Your task to perform on an android device: Open Google Chrome and open the bookmarks view Image 0: 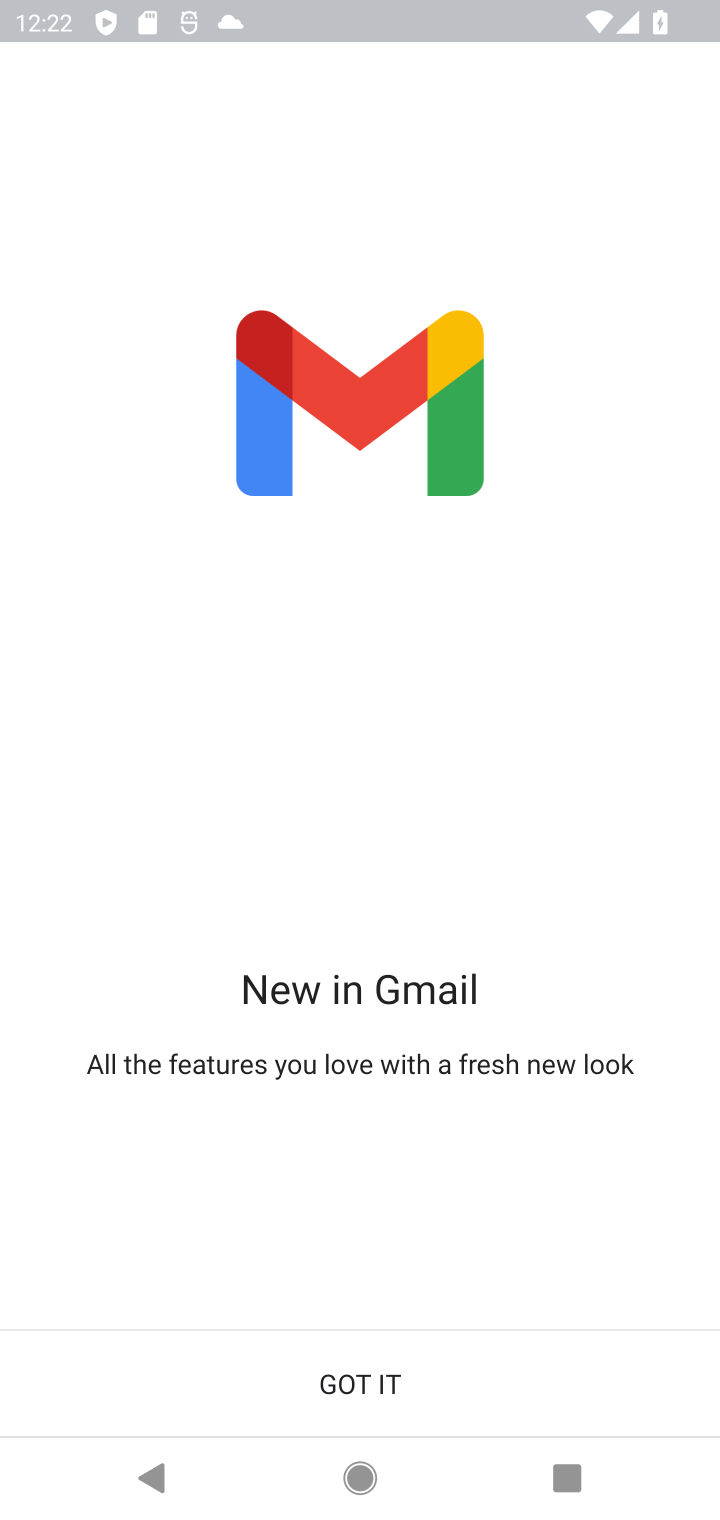
Step 0: press home button
Your task to perform on an android device: Open Google Chrome and open the bookmarks view Image 1: 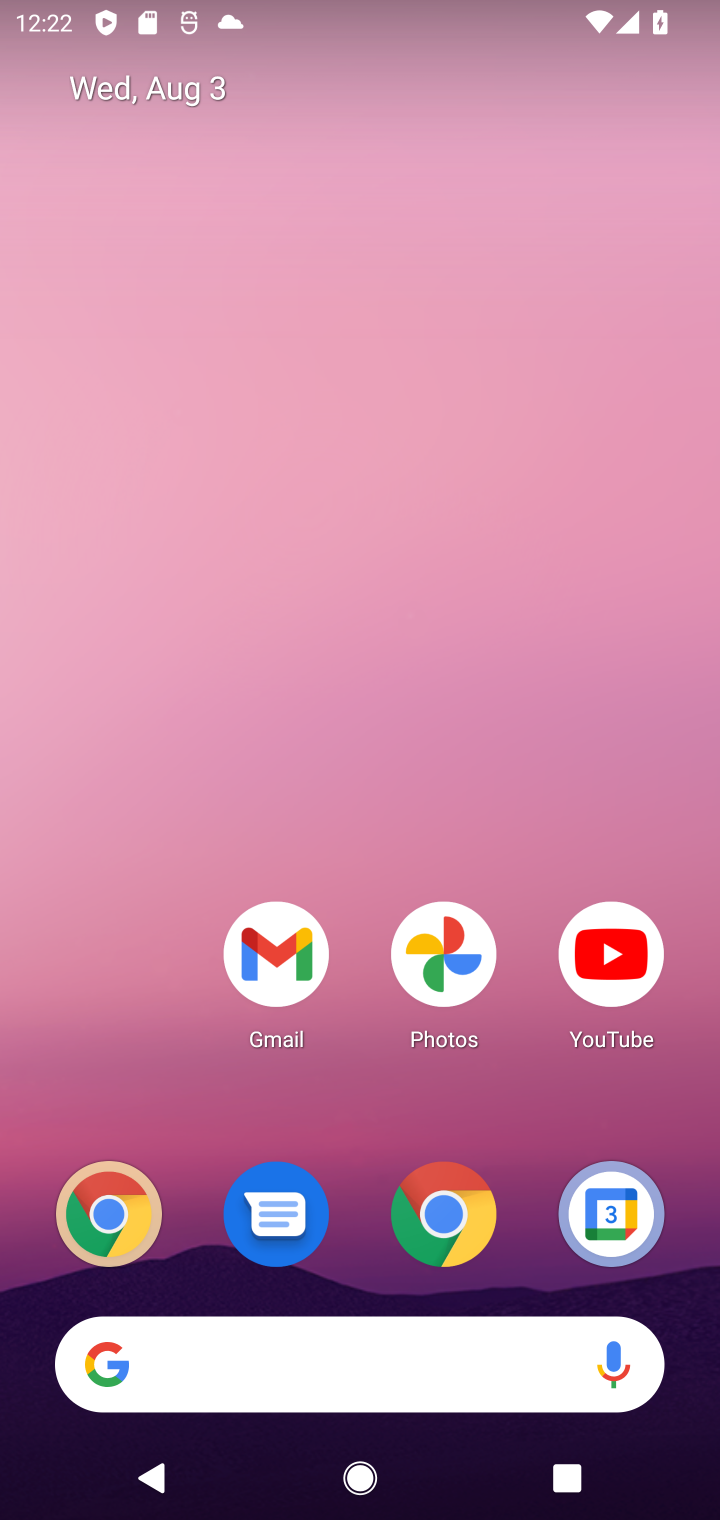
Step 1: click (472, 1202)
Your task to perform on an android device: Open Google Chrome and open the bookmarks view Image 2: 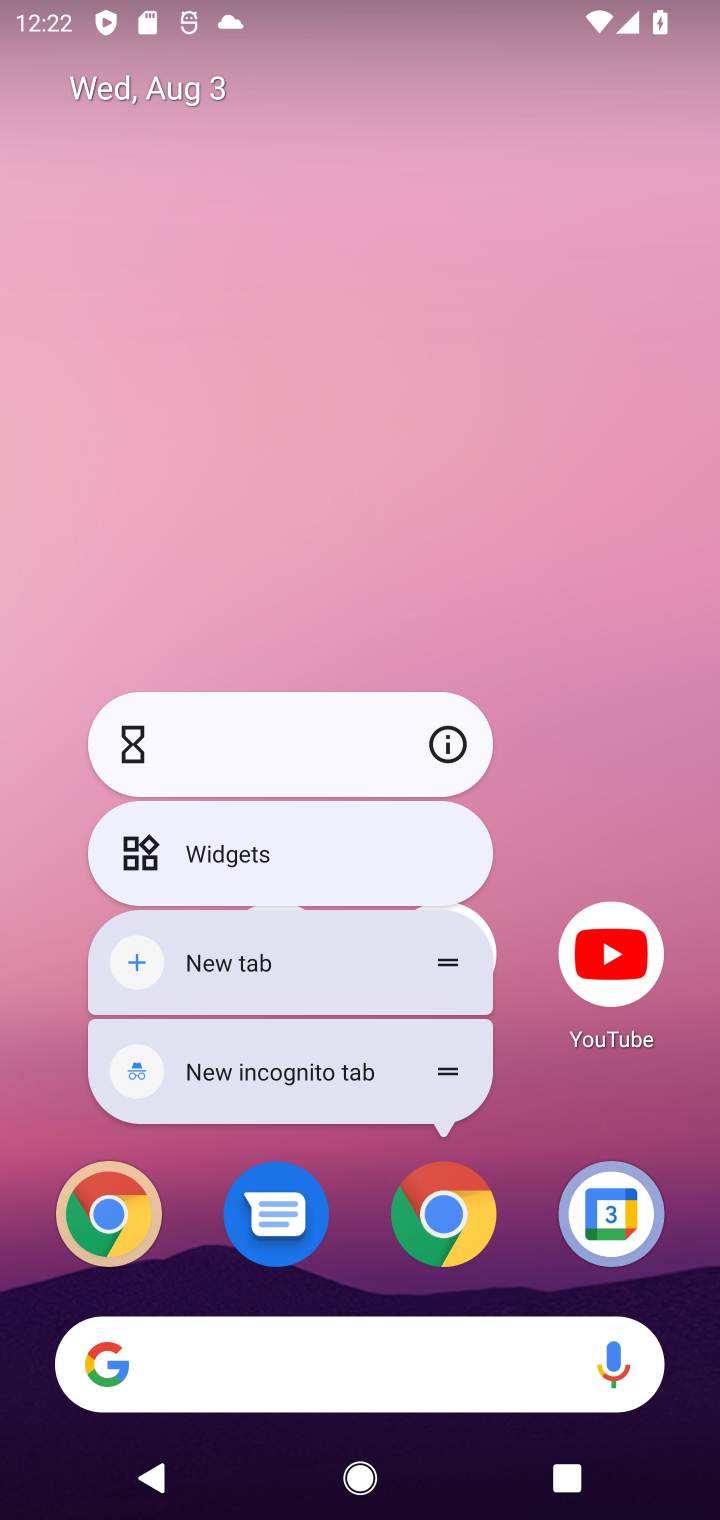
Step 2: click (462, 1209)
Your task to perform on an android device: Open Google Chrome and open the bookmarks view Image 3: 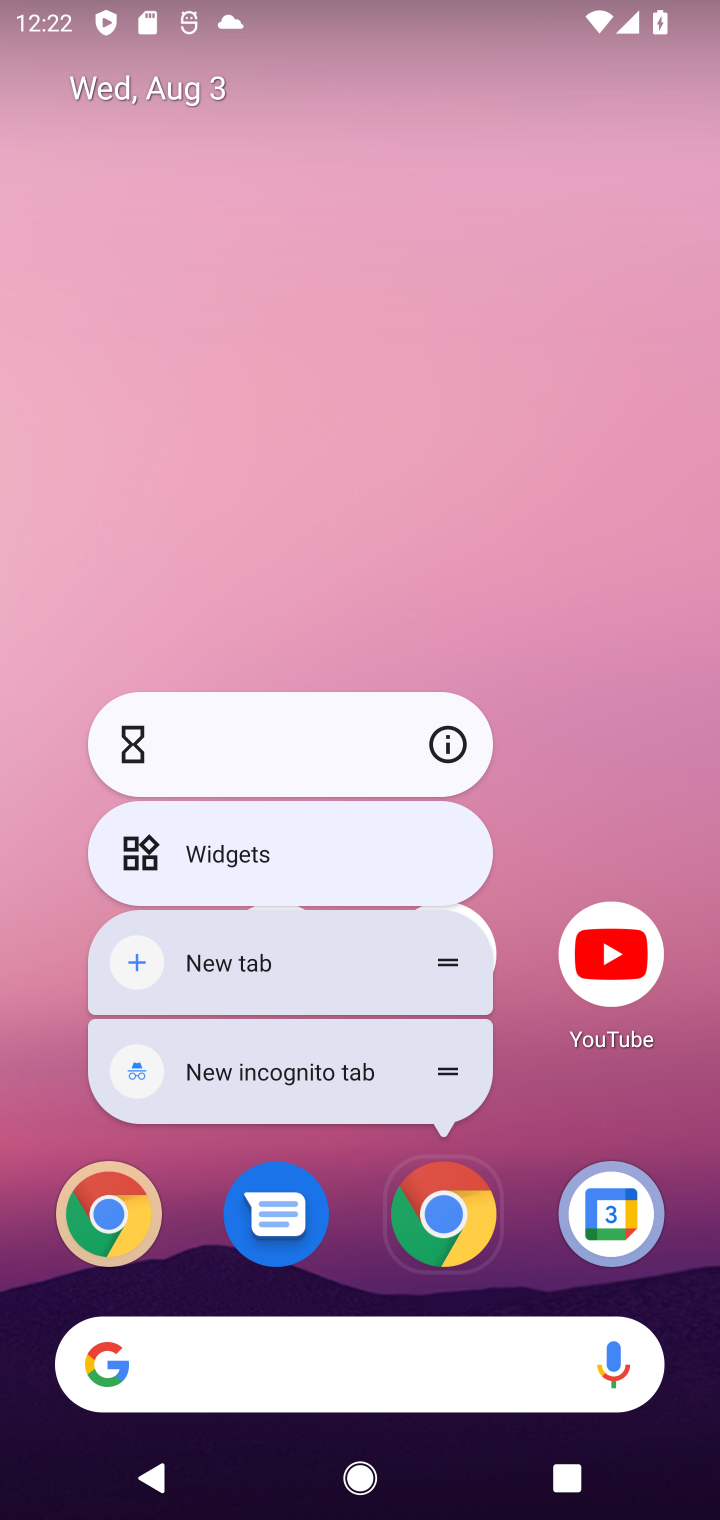
Step 3: click (451, 1251)
Your task to perform on an android device: Open Google Chrome and open the bookmarks view Image 4: 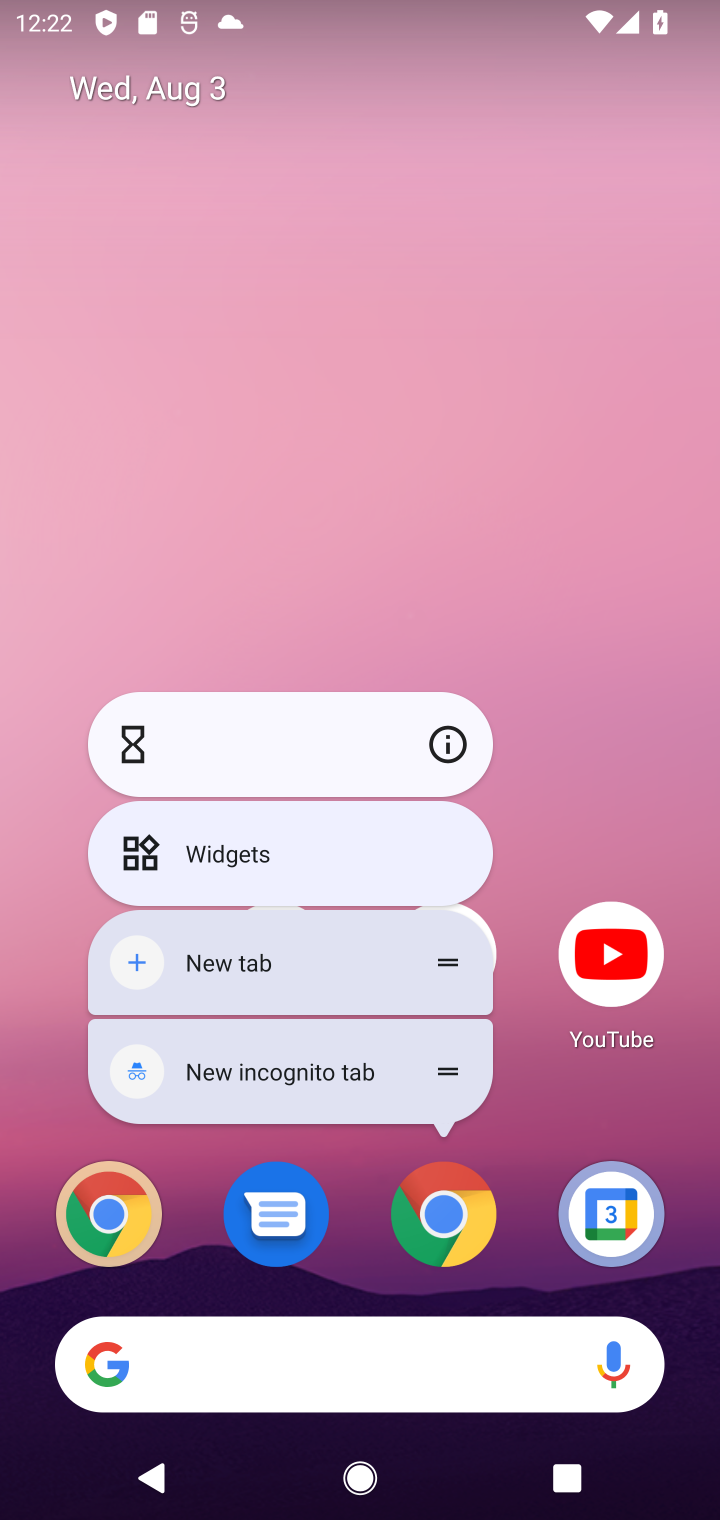
Step 4: click (451, 1251)
Your task to perform on an android device: Open Google Chrome and open the bookmarks view Image 5: 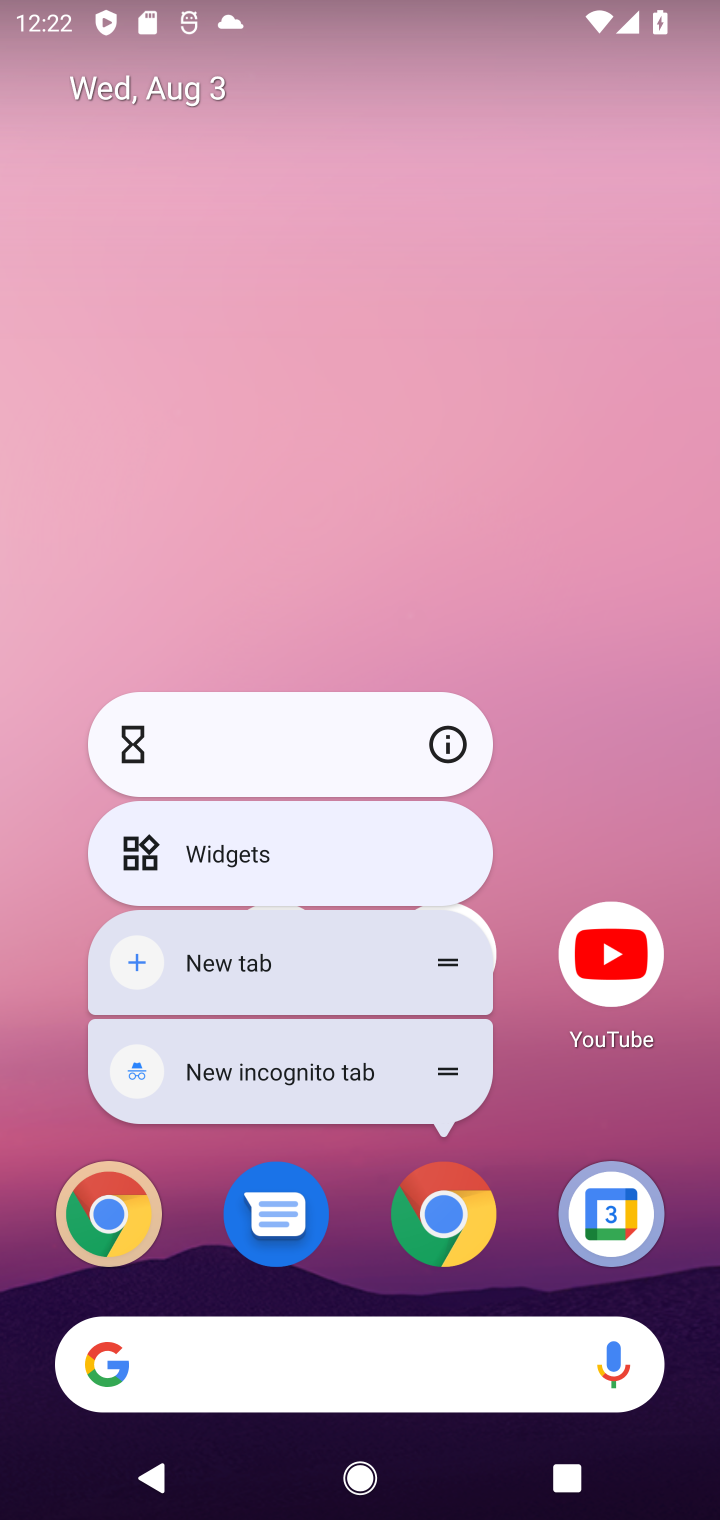
Step 5: click (469, 1230)
Your task to perform on an android device: Open Google Chrome and open the bookmarks view Image 6: 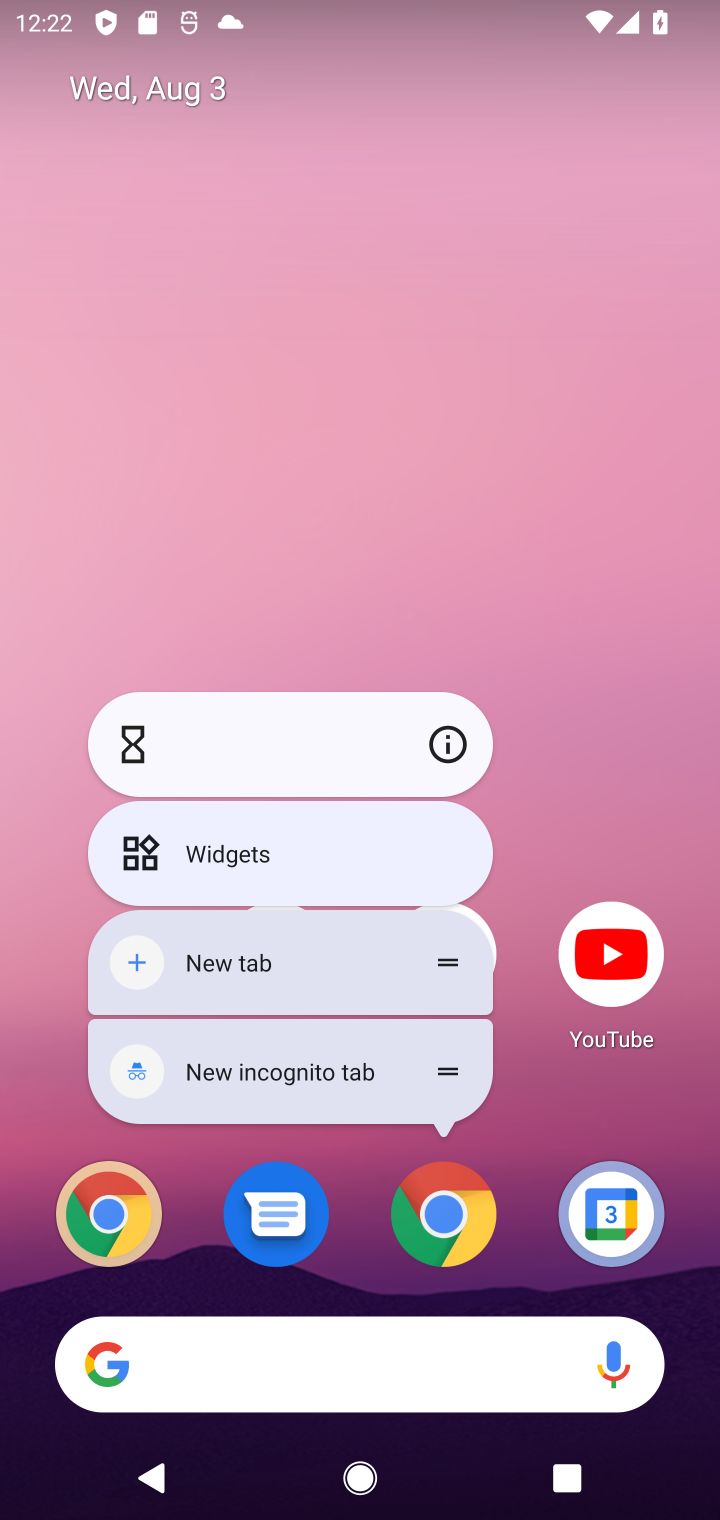
Step 6: click (105, 1234)
Your task to perform on an android device: Open Google Chrome and open the bookmarks view Image 7: 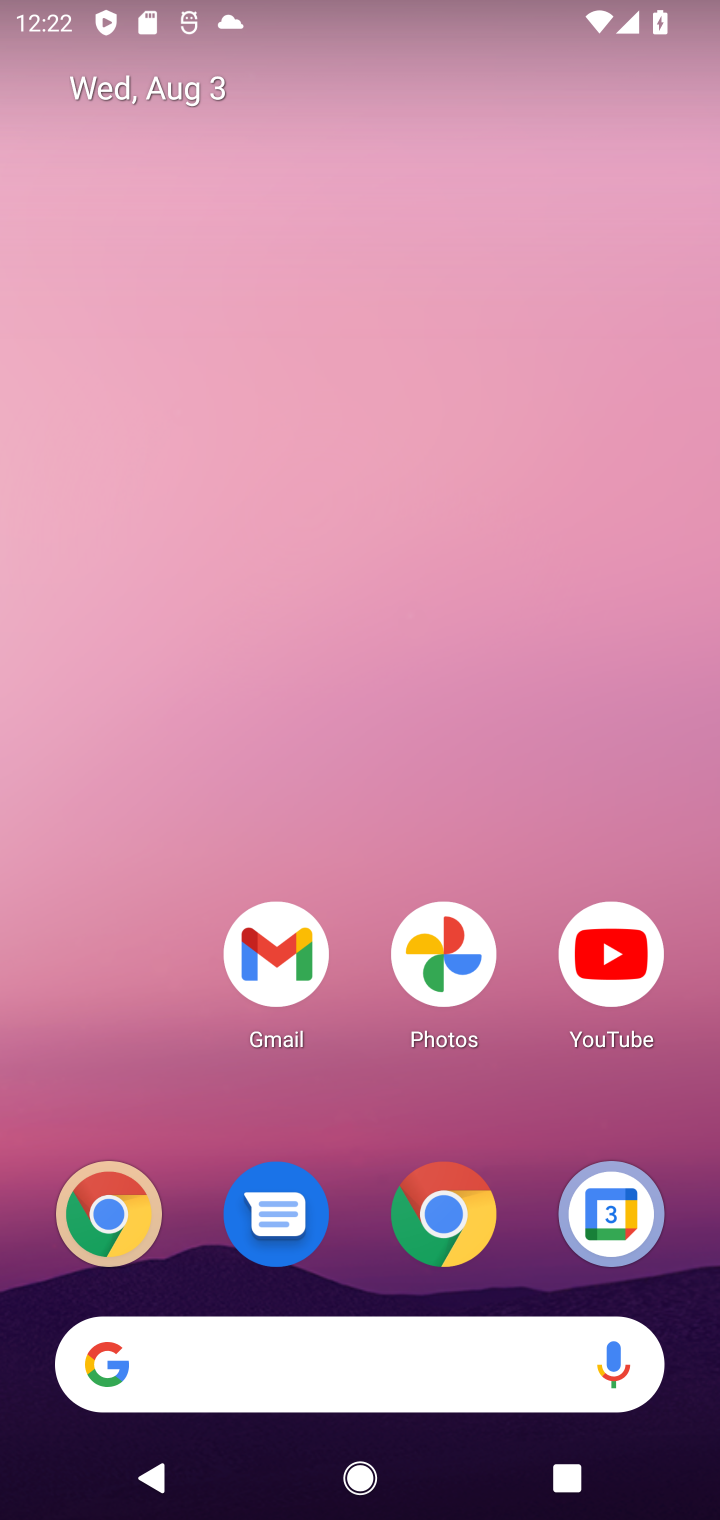
Step 7: click (105, 1234)
Your task to perform on an android device: Open Google Chrome and open the bookmarks view Image 8: 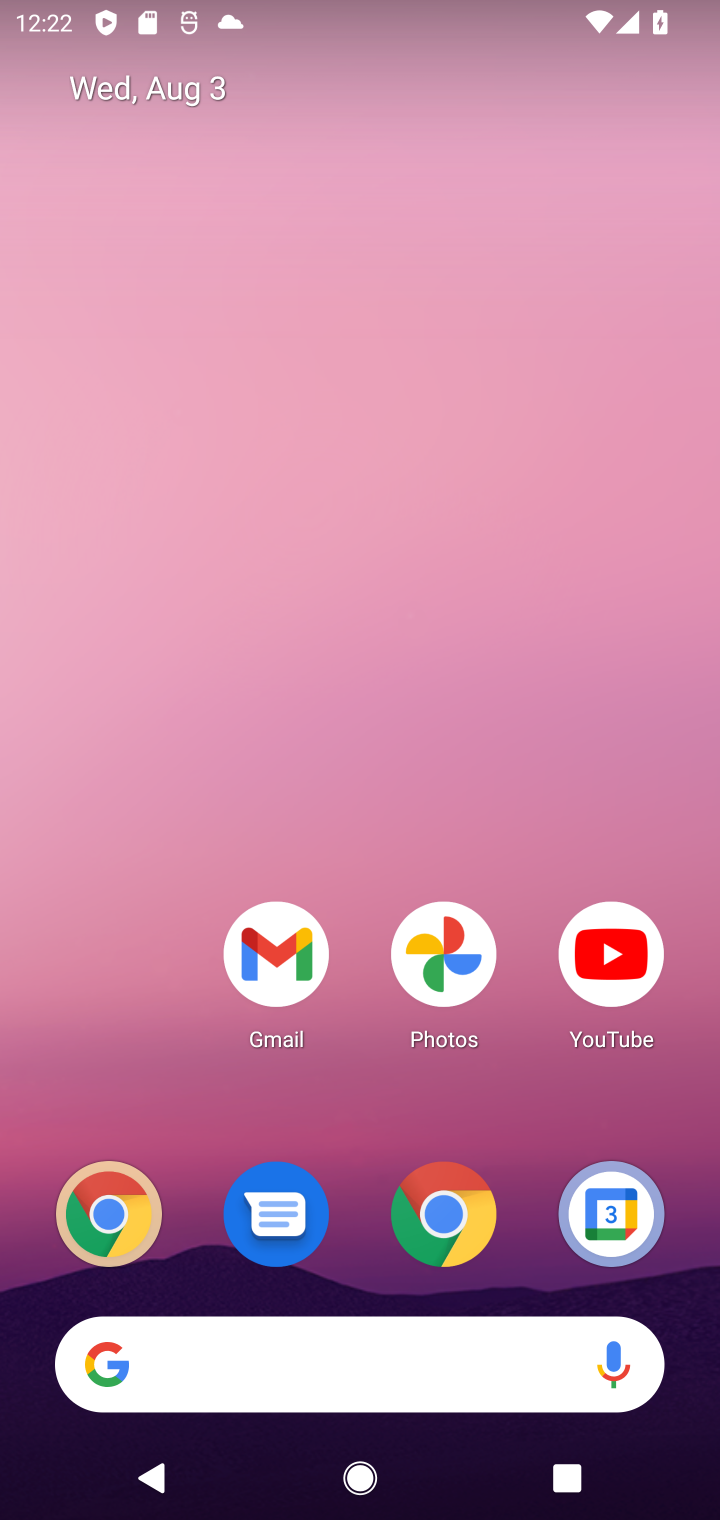
Step 8: drag from (429, 1443) to (436, 41)
Your task to perform on an android device: Open Google Chrome and open the bookmarks view Image 9: 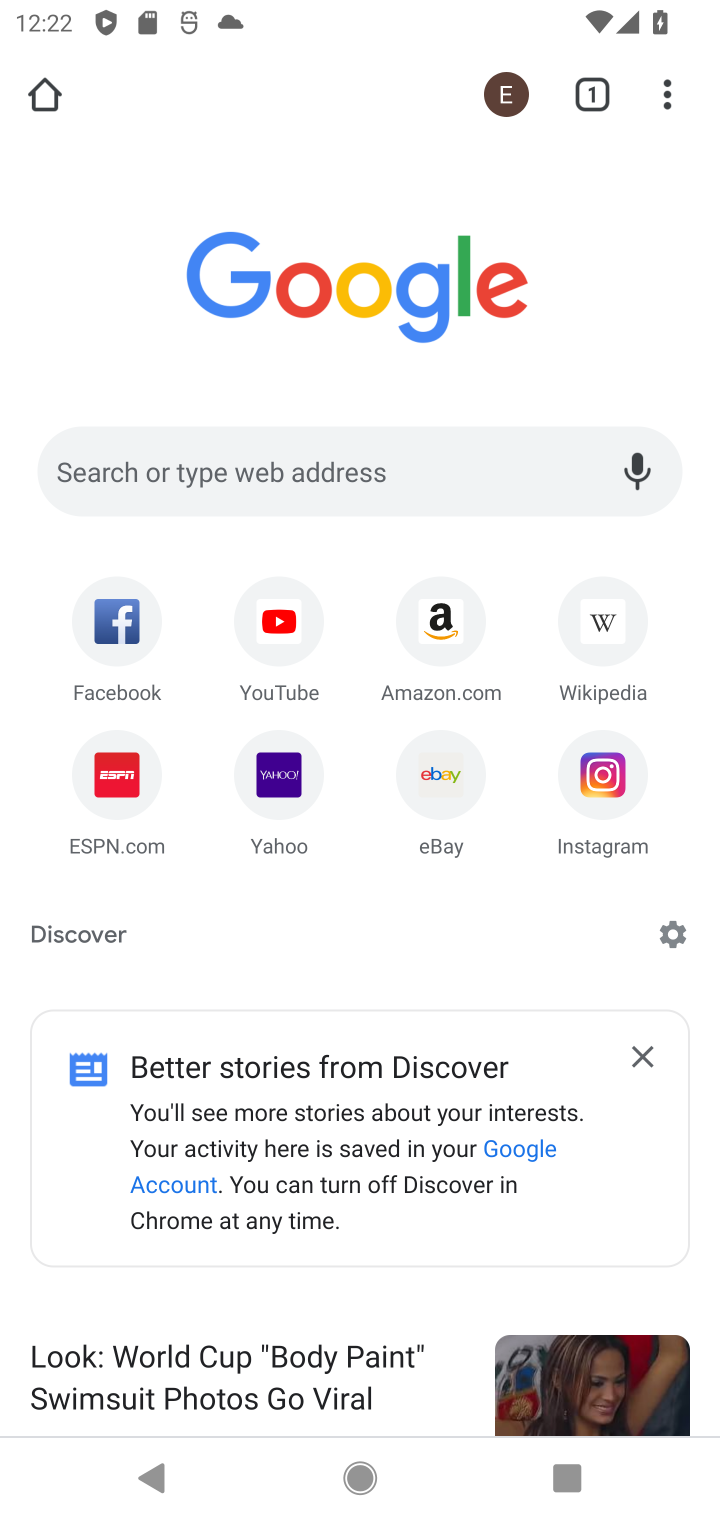
Step 9: click (670, 75)
Your task to perform on an android device: Open Google Chrome and open the bookmarks view Image 10: 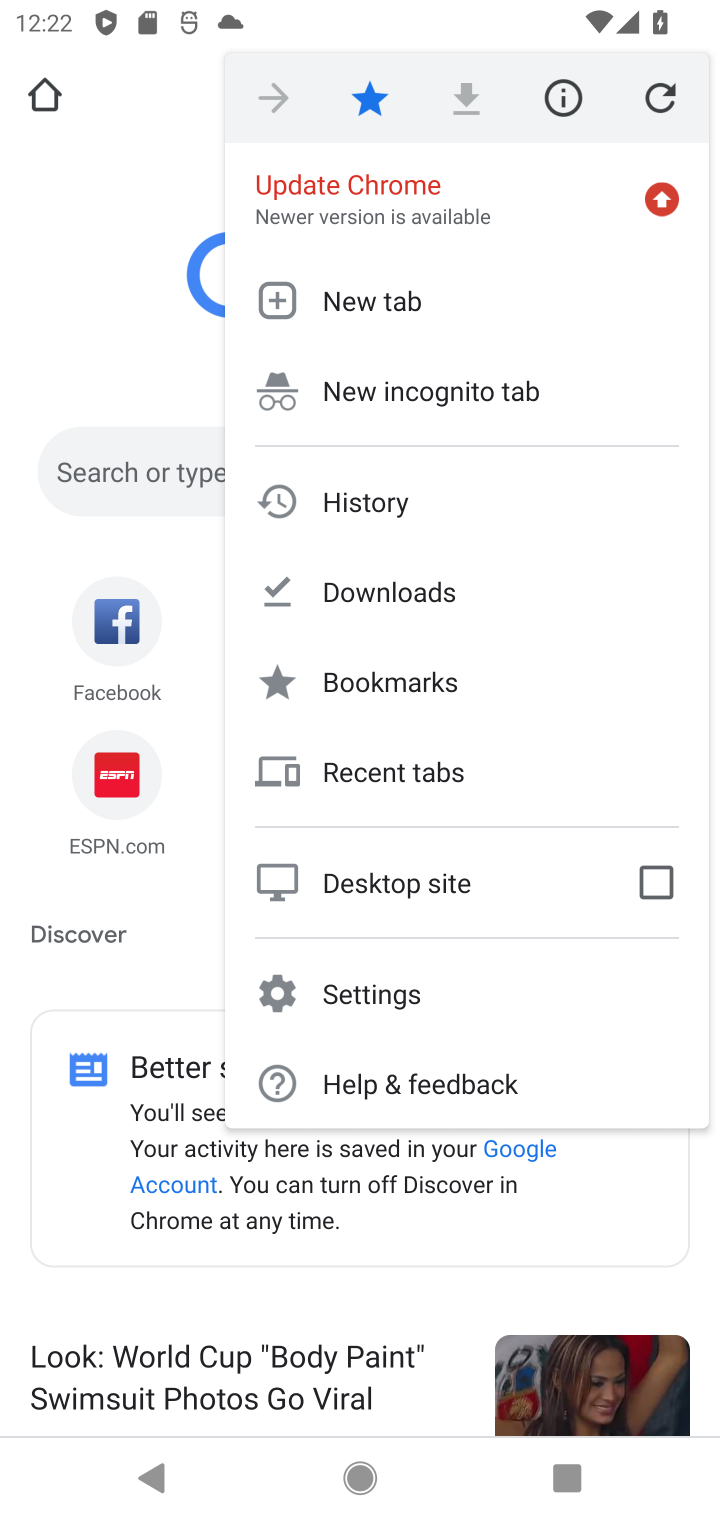
Step 10: click (400, 691)
Your task to perform on an android device: Open Google Chrome and open the bookmarks view Image 11: 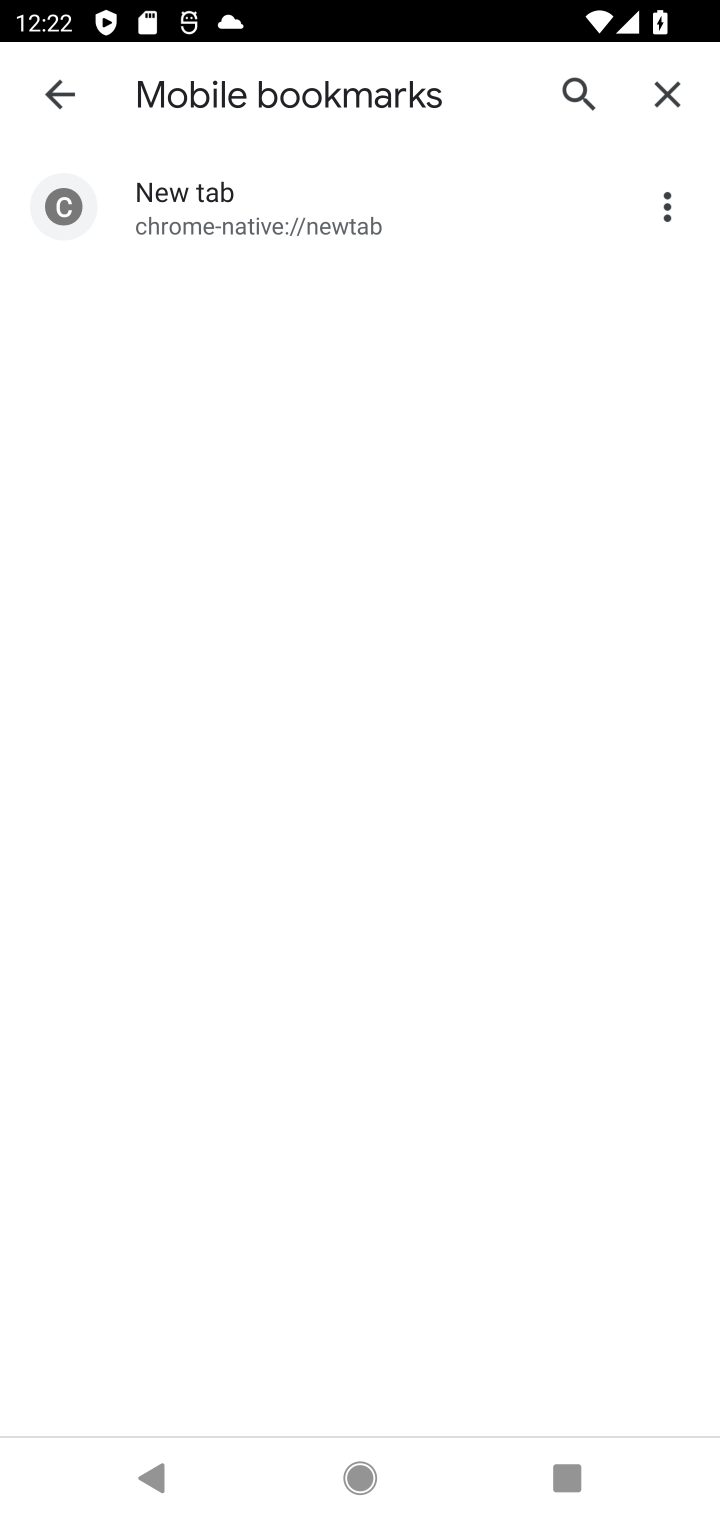
Step 11: task complete